Your task to perform on an android device: Do I have any events tomorrow? Image 0: 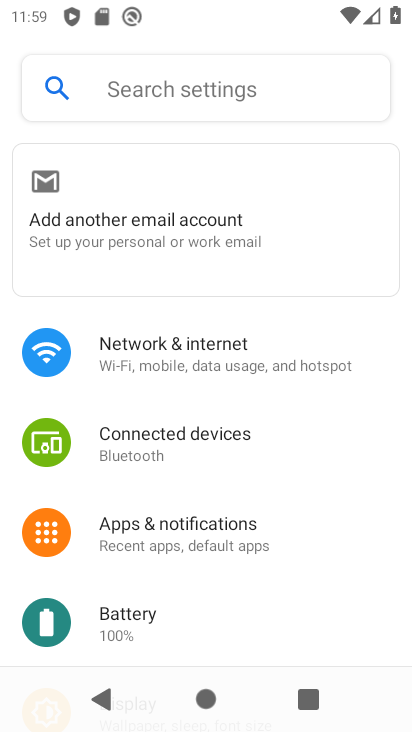
Step 0: press home button
Your task to perform on an android device: Do I have any events tomorrow? Image 1: 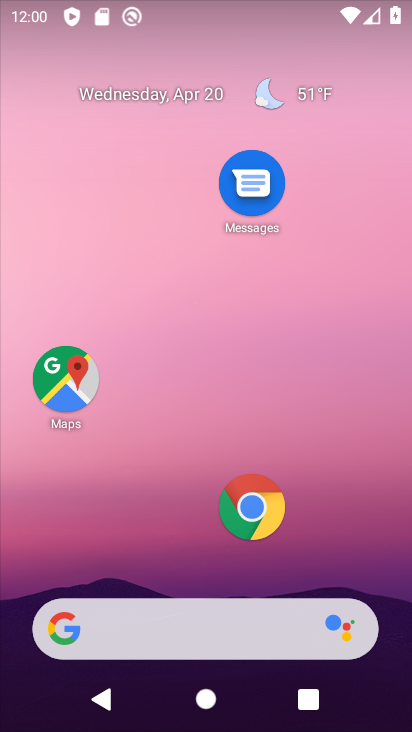
Step 1: drag from (175, 585) to (211, 31)
Your task to perform on an android device: Do I have any events tomorrow? Image 2: 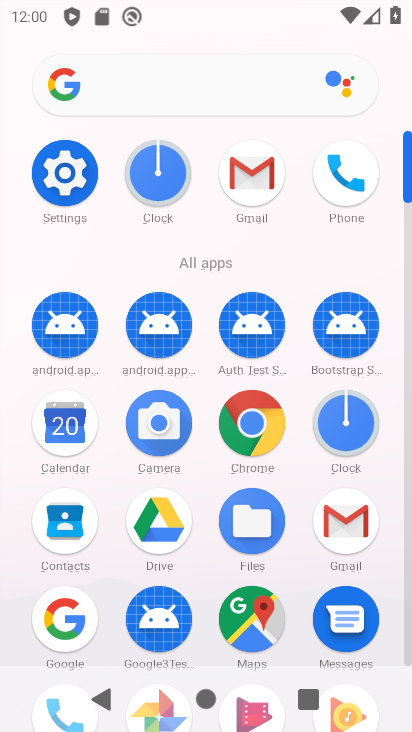
Step 2: click (66, 429)
Your task to perform on an android device: Do I have any events tomorrow? Image 3: 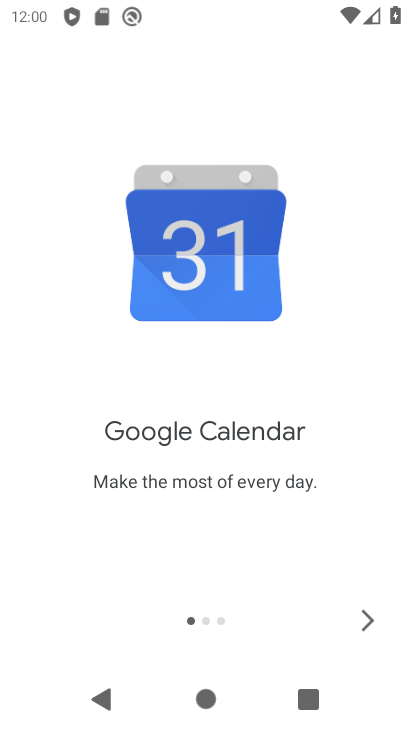
Step 3: click (374, 622)
Your task to perform on an android device: Do I have any events tomorrow? Image 4: 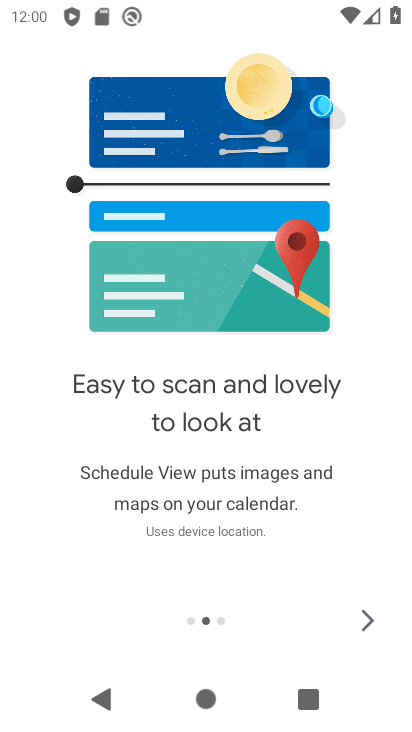
Step 4: click (374, 622)
Your task to perform on an android device: Do I have any events tomorrow? Image 5: 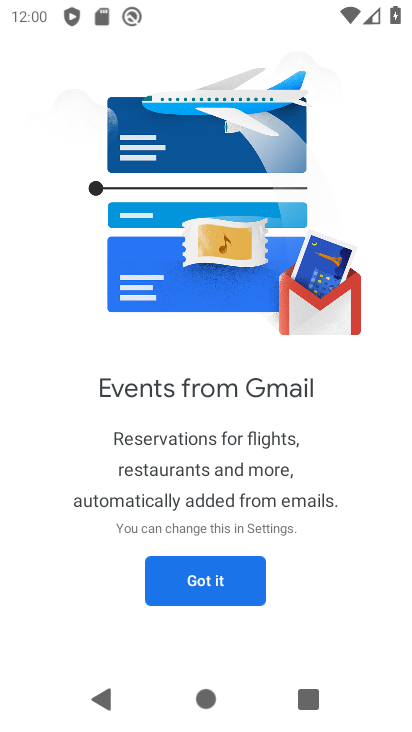
Step 5: click (222, 582)
Your task to perform on an android device: Do I have any events tomorrow? Image 6: 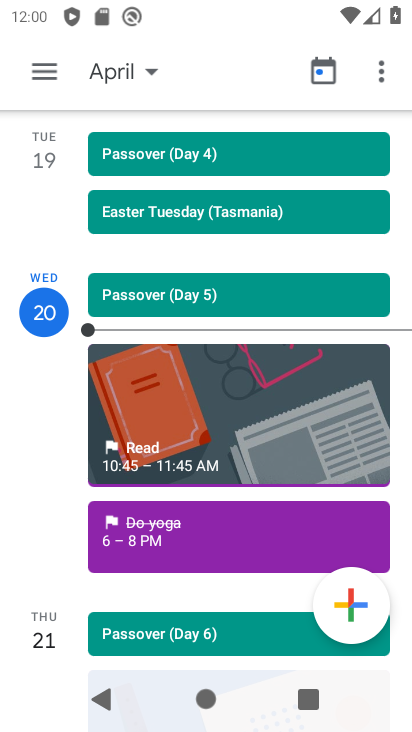
Step 6: click (148, 76)
Your task to perform on an android device: Do I have any events tomorrow? Image 7: 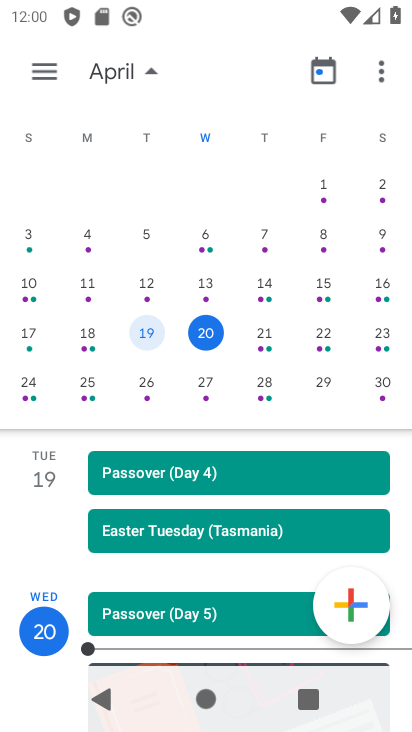
Step 7: click (272, 334)
Your task to perform on an android device: Do I have any events tomorrow? Image 8: 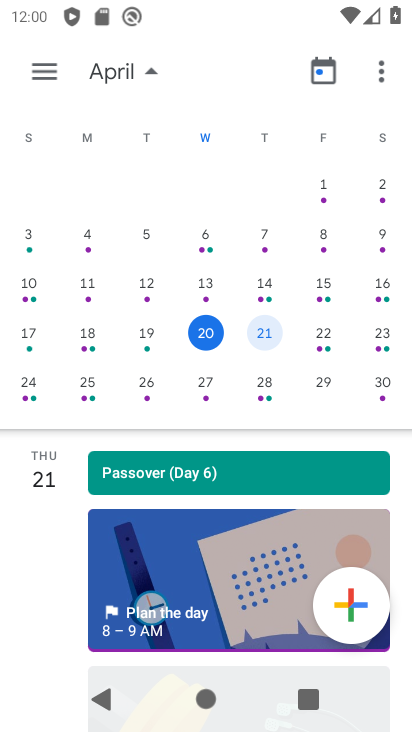
Step 8: task complete